Your task to perform on an android device: Open Google Image 0: 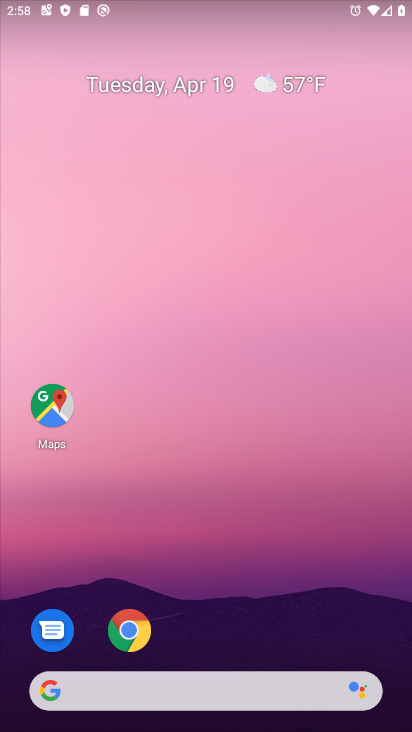
Step 0: click (211, 689)
Your task to perform on an android device: Open Google Image 1: 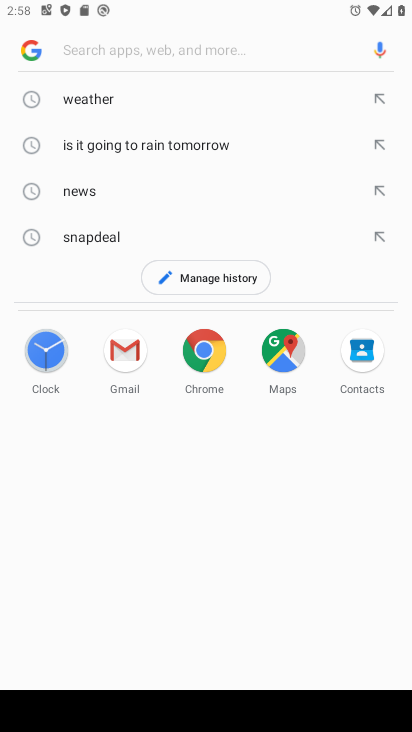
Step 1: task complete